Your task to perform on an android device: read, delete, or share a saved page in the chrome app Image 0: 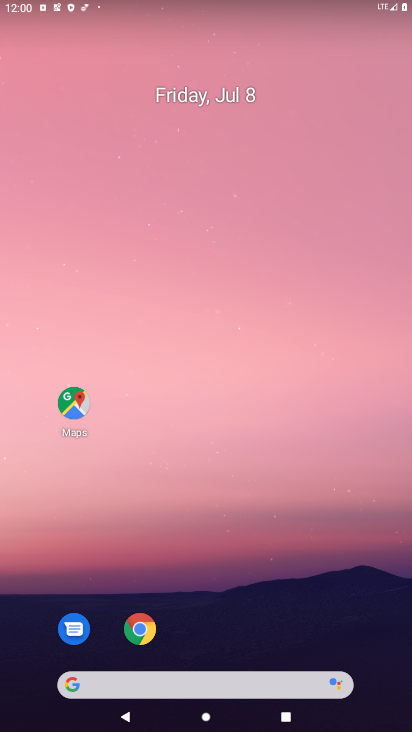
Step 0: click (138, 627)
Your task to perform on an android device: read, delete, or share a saved page in the chrome app Image 1: 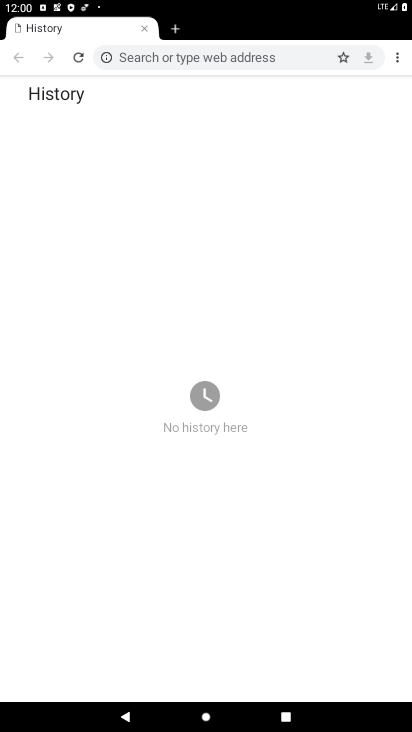
Step 1: click (395, 62)
Your task to perform on an android device: read, delete, or share a saved page in the chrome app Image 2: 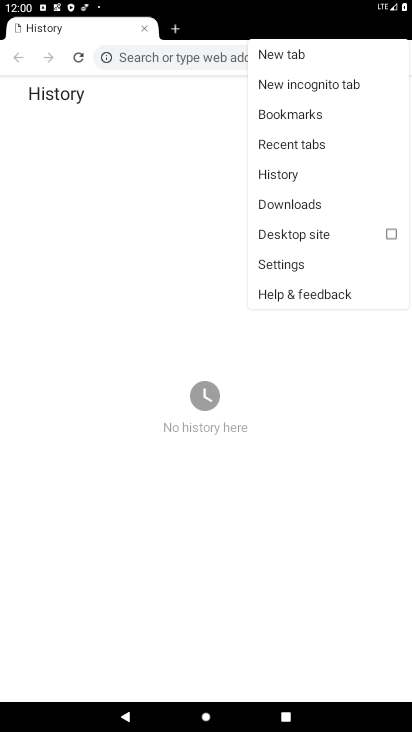
Step 2: click (279, 194)
Your task to perform on an android device: read, delete, or share a saved page in the chrome app Image 3: 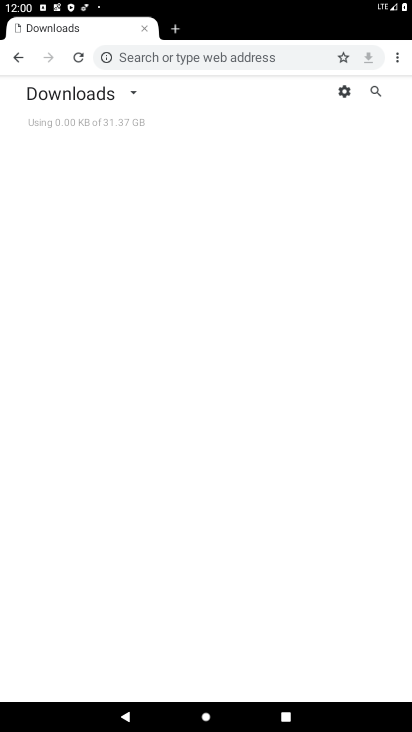
Step 3: click (133, 91)
Your task to perform on an android device: read, delete, or share a saved page in the chrome app Image 4: 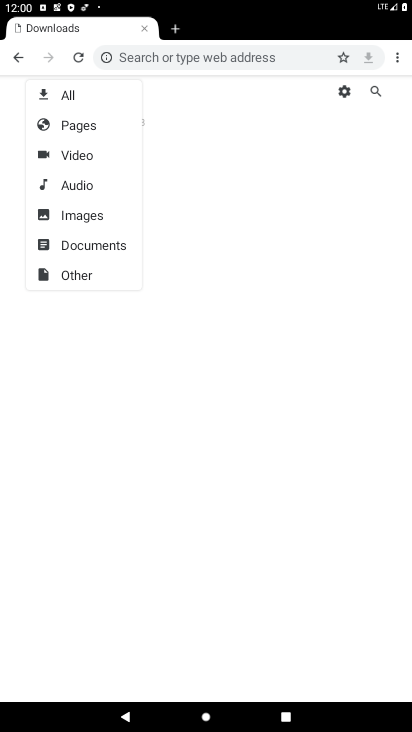
Step 4: click (67, 126)
Your task to perform on an android device: read, delete, or share a saved page in the chrome app Image 5: 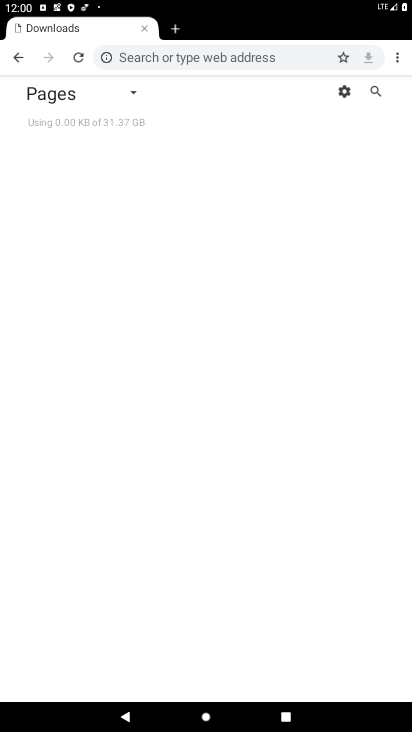
Step 5: task complete